Your task to perform on an android device: turn off javascript in the chrome app Image 0: 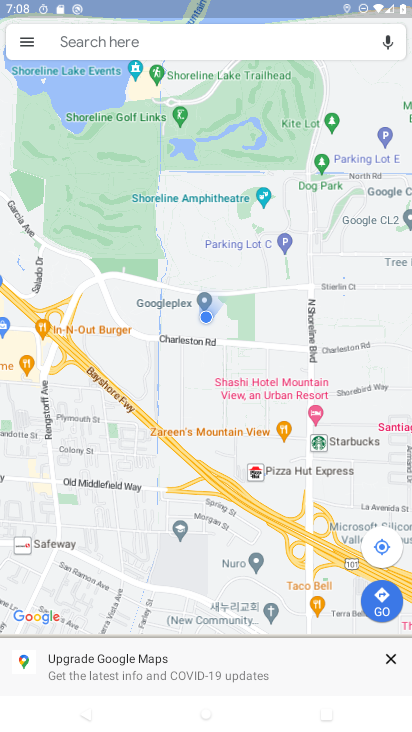
Step 0: press home button
Your task to perform on an android device: turn off javascript in the chrome app Image 1: 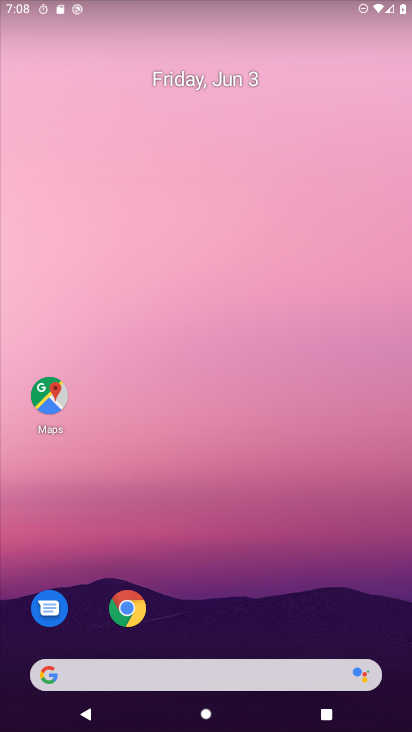
Step 1: click (127, 611)
Your task to perform on an android device: turn off javascript in the chrome app Image 2: 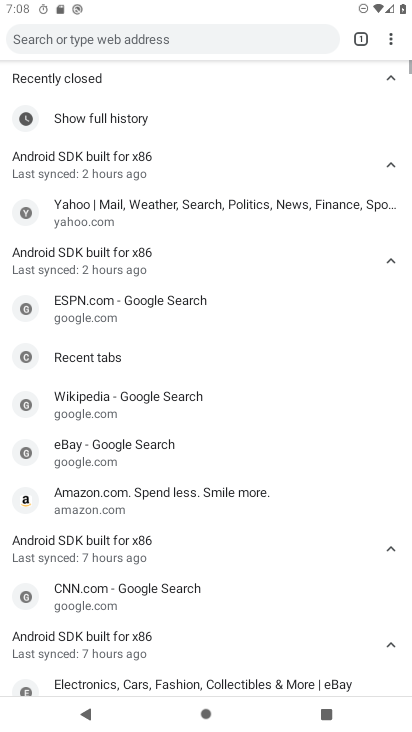
Step 2: click (400, 38)
Your task to perform on an android device: turn off javascript in the chrome app Image 3: 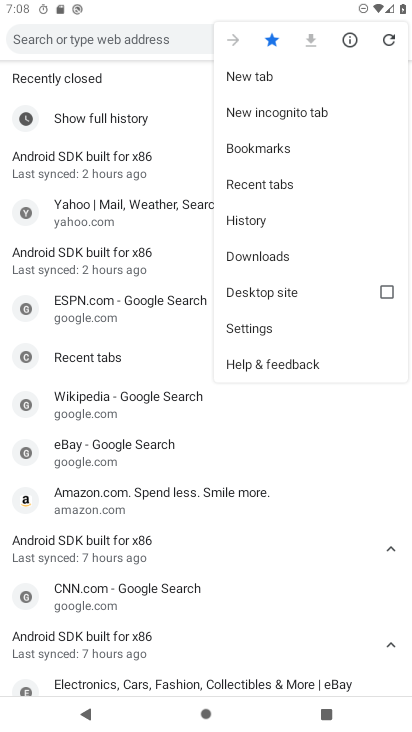
Step 3: click (264, 328)
Your task to perform on an android device: turn off javascript in the chrome app Image 4: 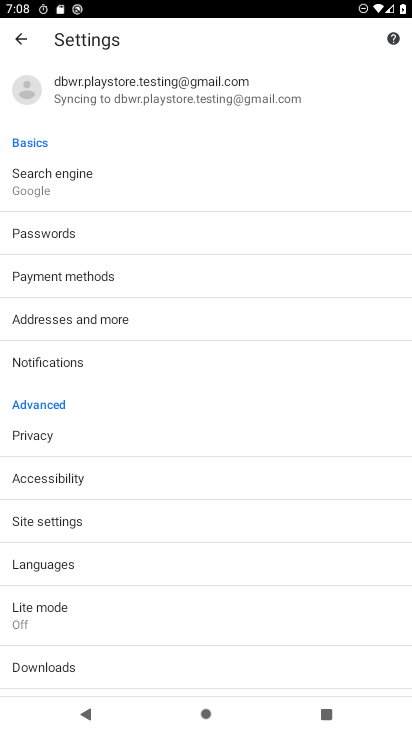
Step 4: click (68, 537)
Your task to perform on an android device: turn off javascript in the chrome app Image 5: 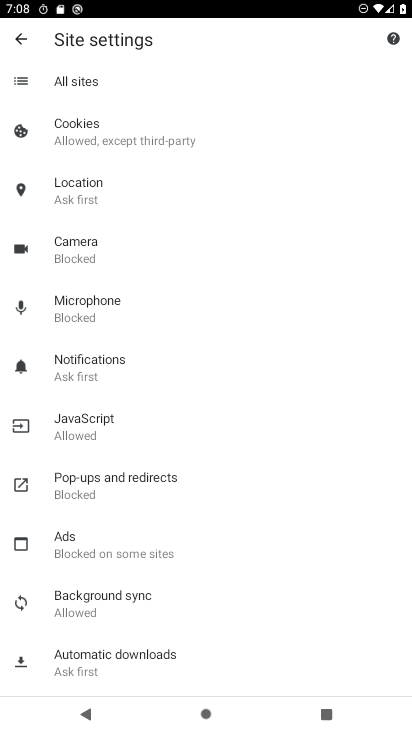
Step 5: click (90, 426)
Your task to perform on an android device: turn off javascript in the chrome app Image 6: 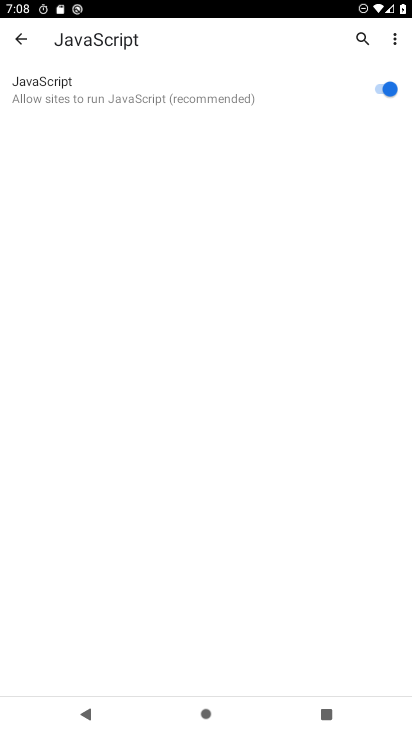
Step 6: click (386, 85)
Your task to perform on an android device: turn off javascript in the chrome app Image 7: 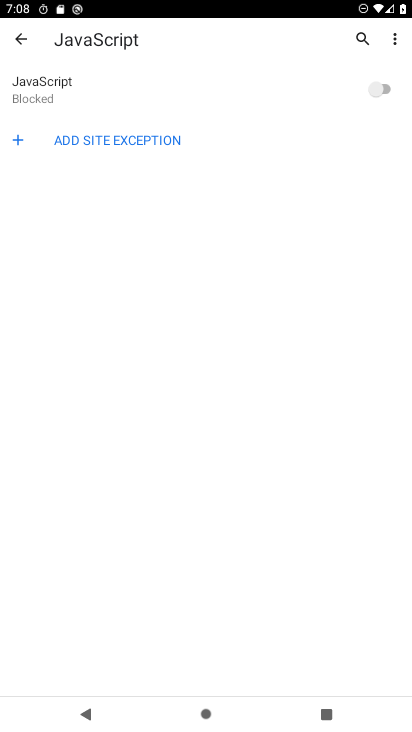
Step 7: task complete